Your task to perform on an android device: set the stopwatch Image 0: 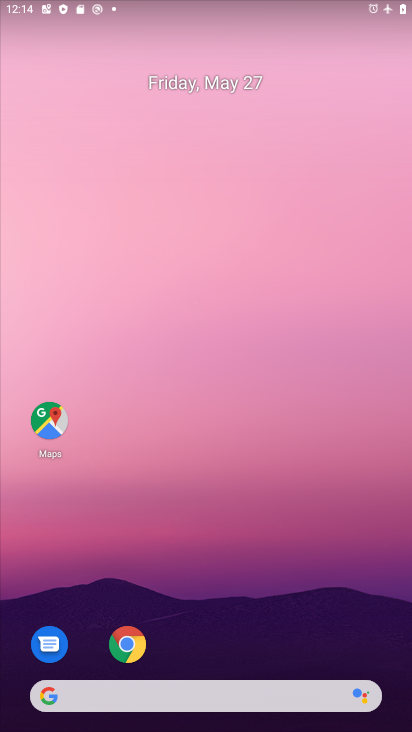
Step 0: drag from (236, 635) to (286, 130)
Your task to perform on an android device: set the stopwatch Image 1: 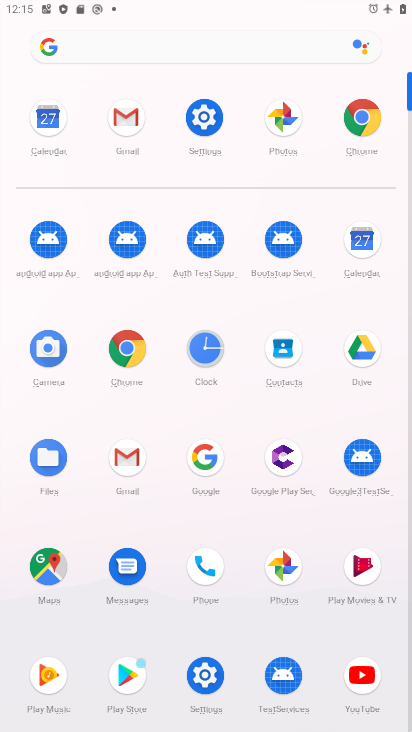
Step 1: drag from (169, 485) to (172, 367)
Your task to perform on an android device: set the stopwatch Image 2: 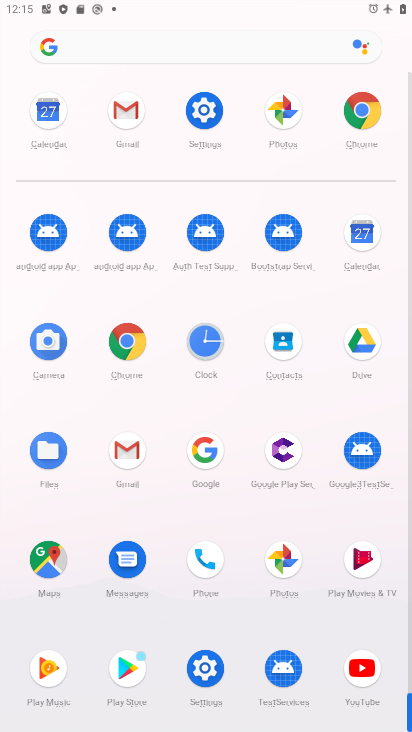
Step 2: click (194, 317)
Your task to perform on an android device: set the stopwatch Image 3: 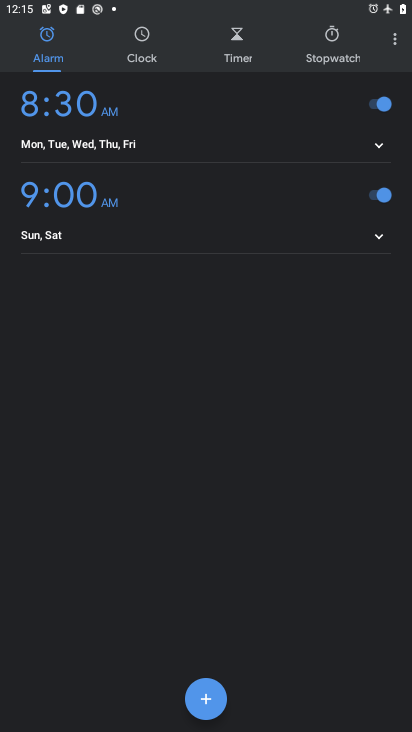
Step 3: click (330, 37)
Your task to perform on an android device: set the stopwatch Image 4: 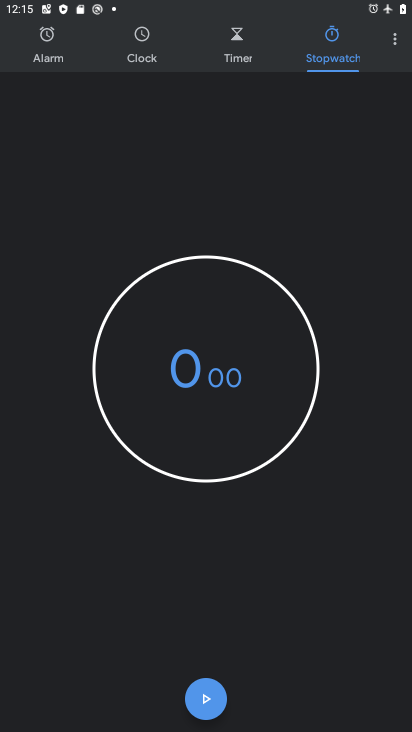
Step 4: click (207, 694)
Your task to perform on an android device: set the stopwatch Image 5: 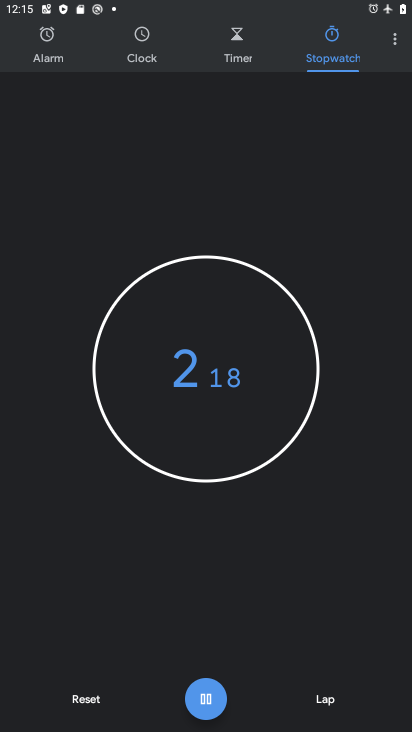
Step 5: task complete